Your task to perform on an android device: Open Chrome and go to settings Image 0: 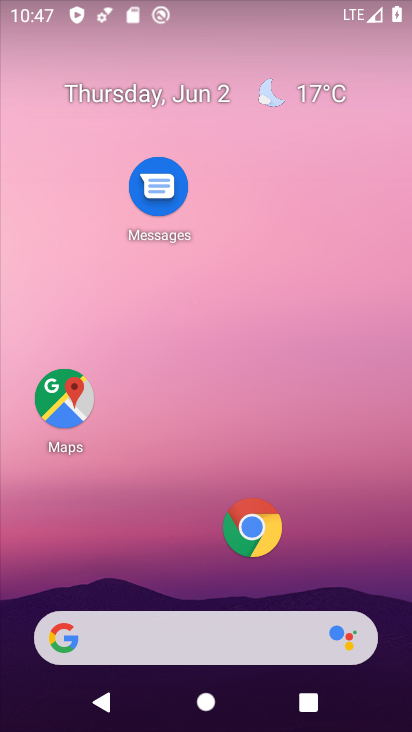
Step 0: press home button
Your task to perform on an android device: Open Chrome and go to settings Image 1: 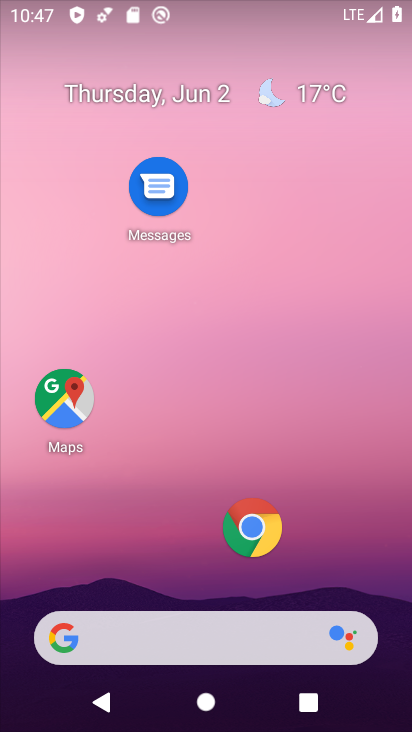
Step 1: click (248, 524)
Your task to perform on an android device: Open Chrome and go to settings Image 2: 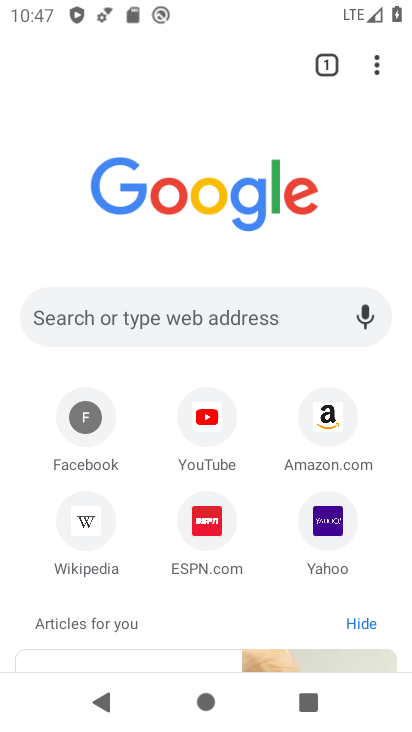
Step 2: click (374, 65)
Your task to perform on an android device: Open Chrome and go to settings Image 3: 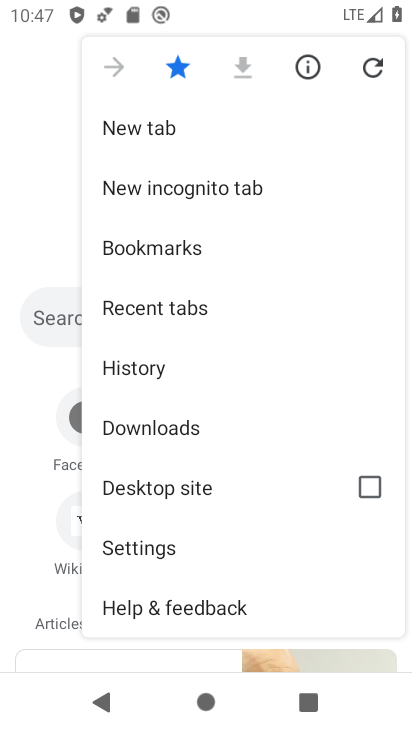
Step 3: click (188, 536)
Your task to perform on an android device: Open Chrome and go to settings Image 4: 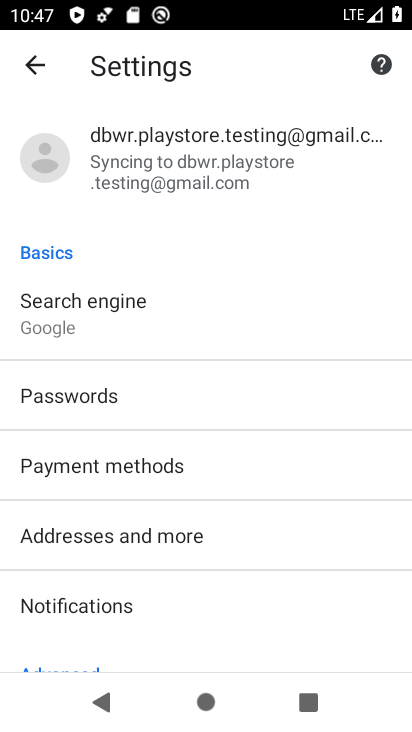
Step 4: task complete